Your task to perform on an android device: Open Google Image 0: 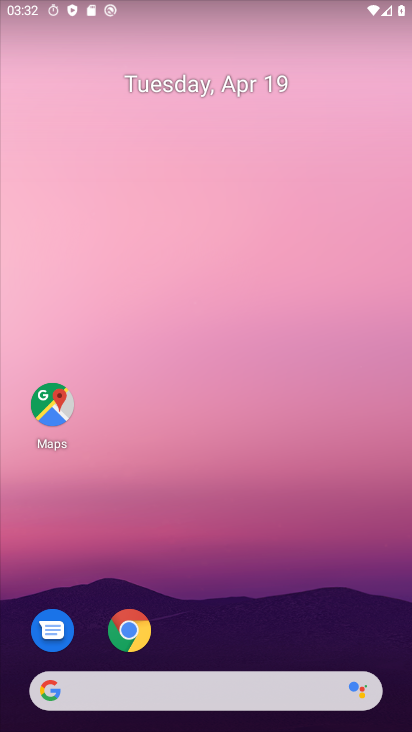
Step 0: drag from (195, 578) to (195, 77)
Your task to perform on an android device: Open Google Image 1: 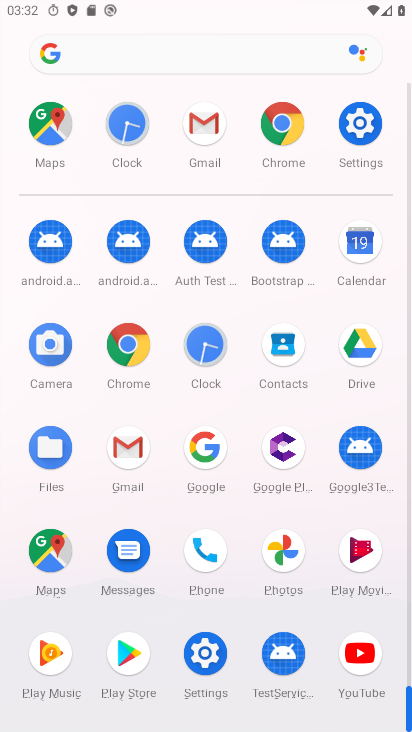
Step 1: click (200, 448)
Your task to perform on an android device: Open Google Image 2: 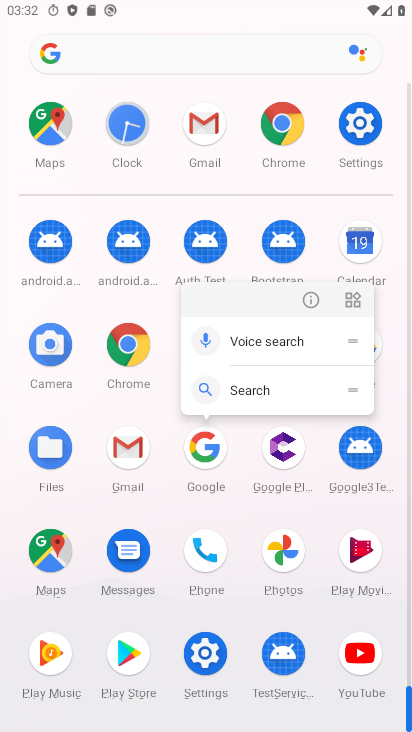
Step 2: click (201, 446)
Your task to perform on an android device: Open Google Image 3: 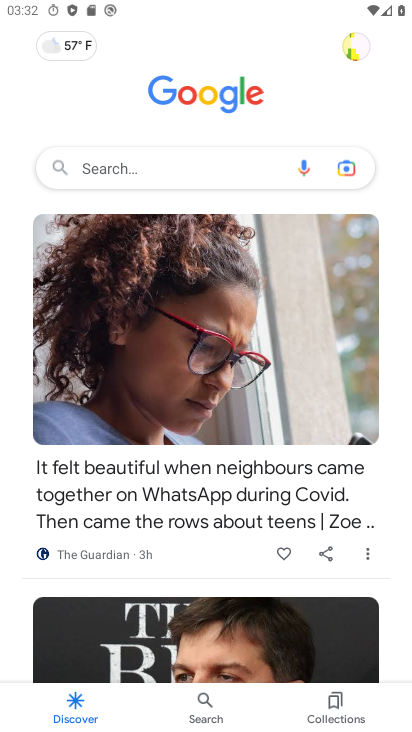
Step 3: task complete